Your task to perform on an android device: Go to Amazon Image 0: 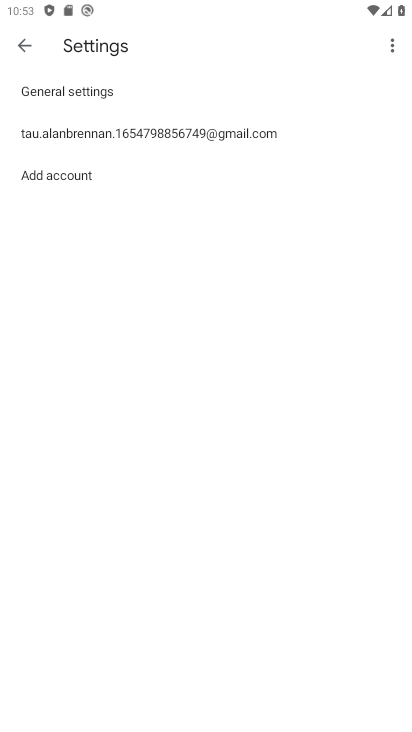
Step 0: press home button
Your task to perform on an android device: Go to Amazon Image 1: 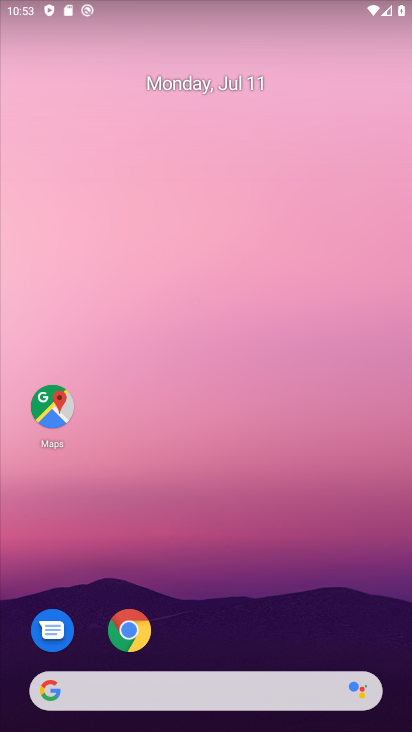
Step 1: drag from (334, 621) to (194, 156)
Your task to perform on an android device: Go to Amazon Image 2: 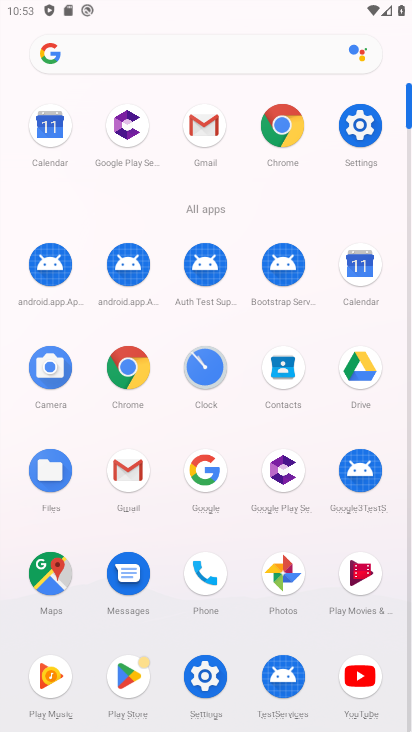
Step 2: click (290, 132)
Your task to perform on an android device: Go to Amazon Image 3: 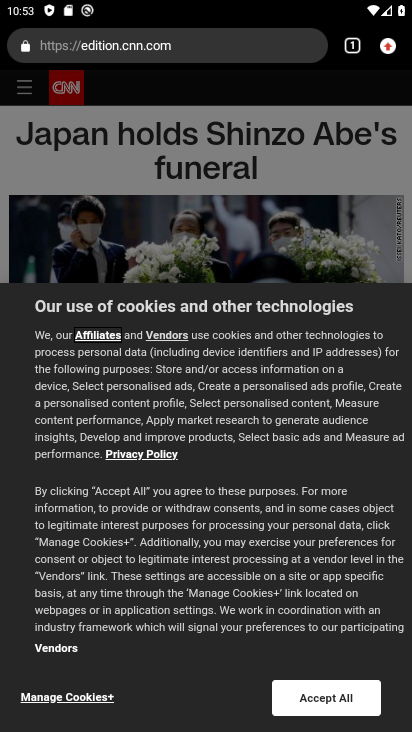
Step 3: click (347, 52)
Your task to perform on an android device: Go to Amazon Image 4: 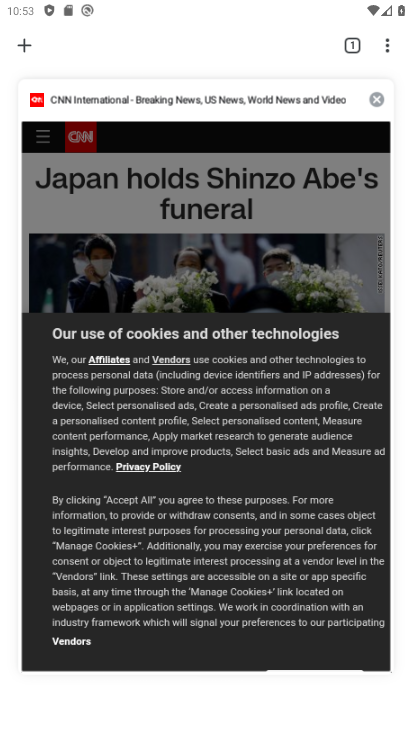
Step 4: click (29, 49)
Your task to perform on an android device: Go to Amazon Image 5: 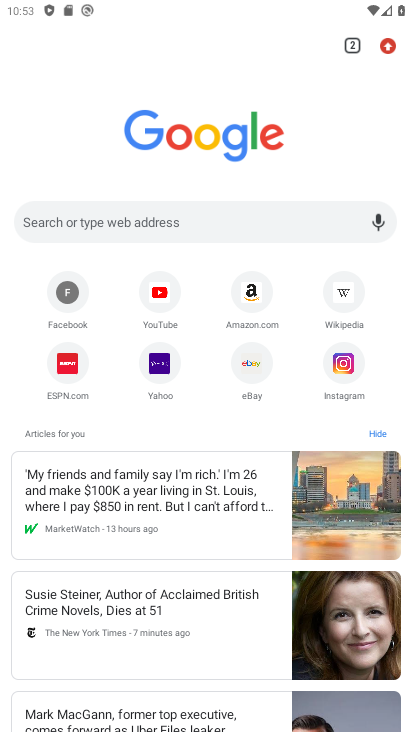
Step 5: click (251, 285)
Your task to perform on an android device: Go to Amazon Image 6: 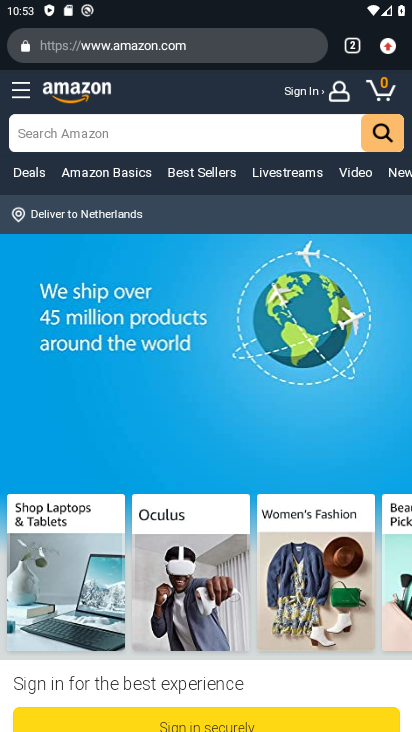
Step 6: task complete